Your task to perform on an android device: Open the map Image 0: 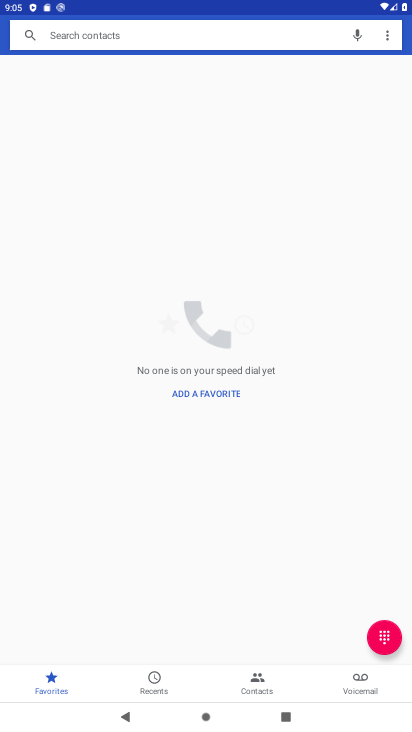
Step 0: press home button
Your task to perform on an android device: Open the map Image 1: 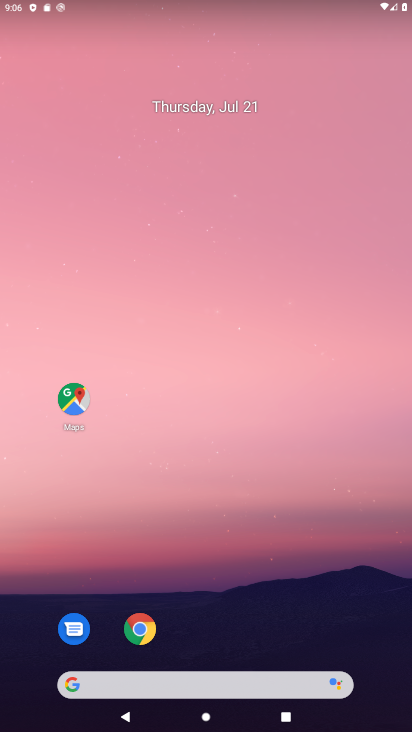
Step 1: click (83, 399)
Your task to perform on an android device: Open the map Image 2: 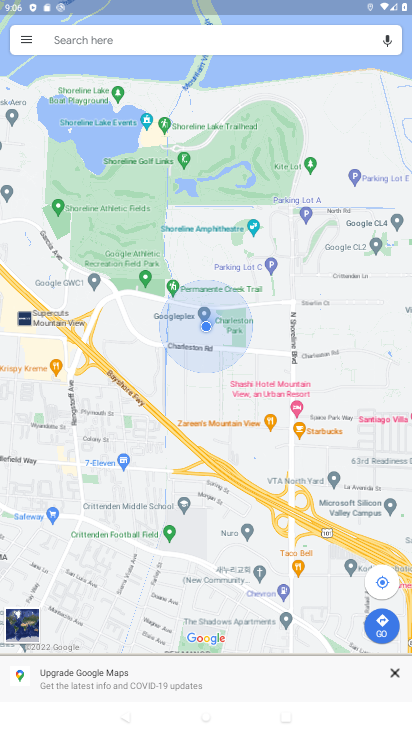
Step 2: task complete